Your task to perform on an android device: turn notification dots on Image 0: 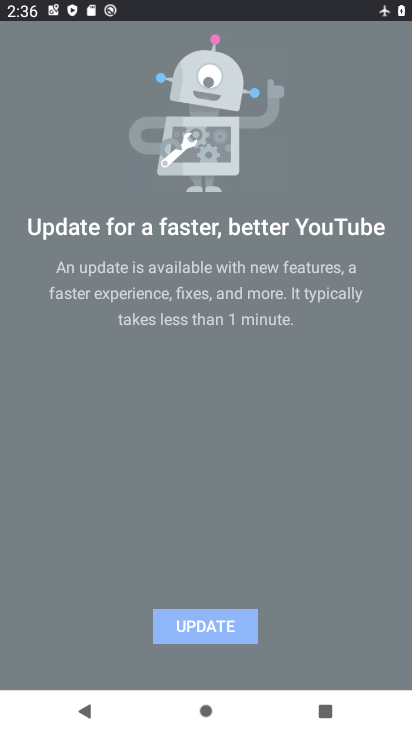
Step 0: drag from (215, 600) to (235, 175)
Your task to perform on an android device: turn notification dots on Image 1: 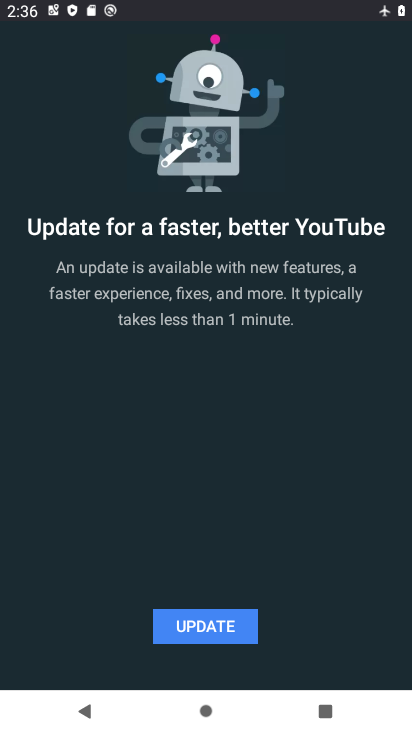
Step 1: press home button
Your task to perform on an android device: turn notification dots on Image 2: 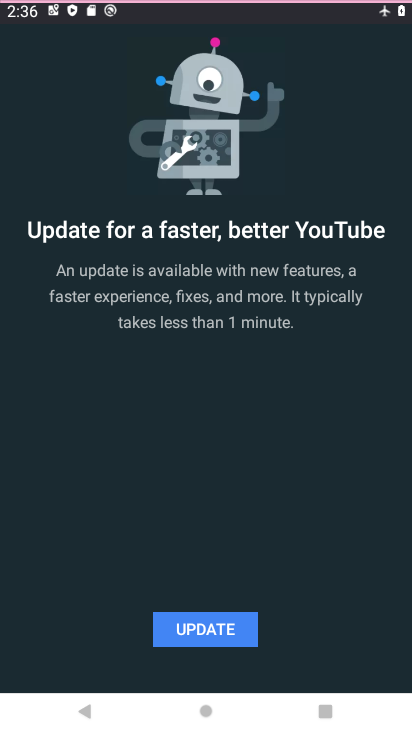
Step 2: press home button
Your task to perform on an android device: turn notification dots on Image 3: 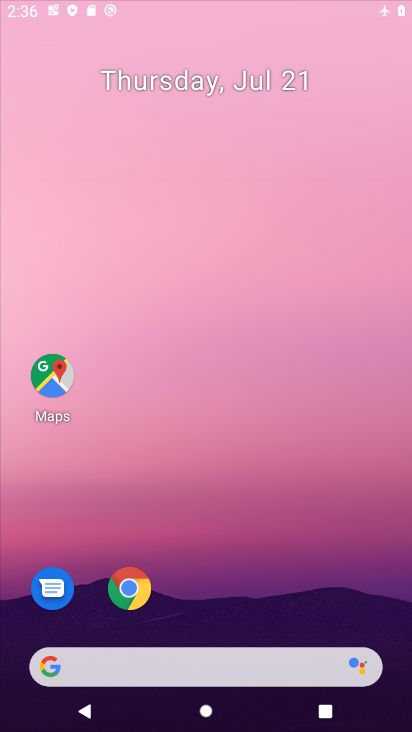
Step 3: drag from (197, 638) to (244, 17)
Your task to perform on an android device: turn notification dots on Image 4: 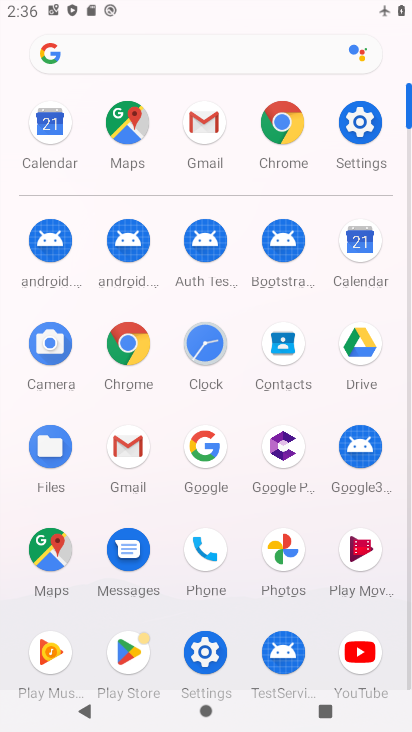
Step 4: drag from (201, 472) to (216, 217)
Your task to perform on an android device: turn notification dots on Image 5: 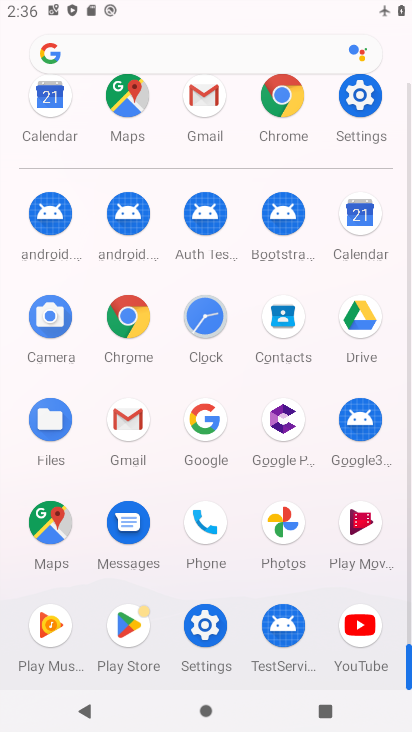
Step 5: click (203, 636)
Your task to perform on an android device: turn notification dots on Image 6: 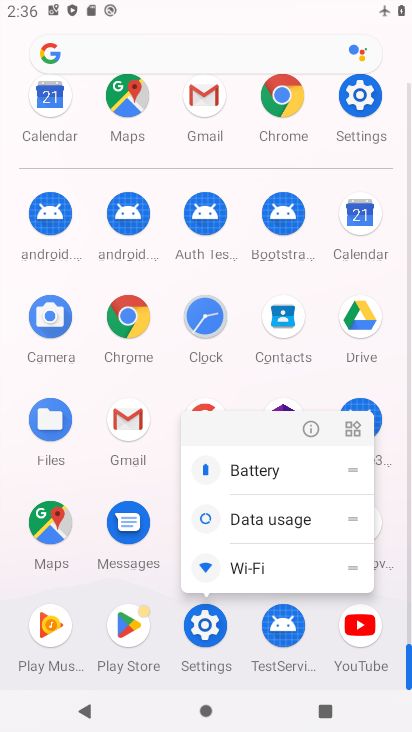
Step 6: click (313, 430)
Your task to perform on an android device: turn notification dots on Image 7: 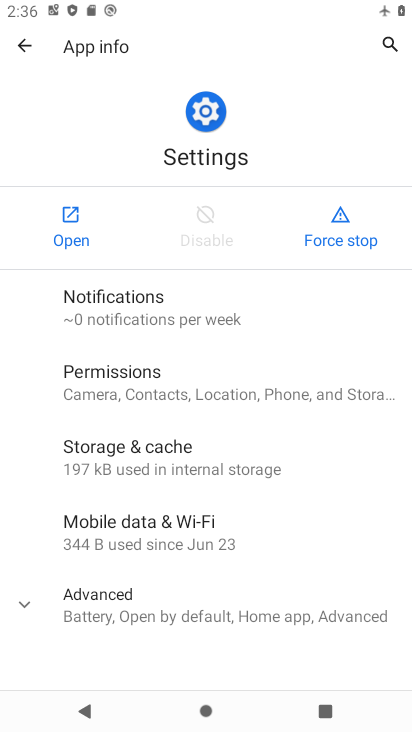
Step 7: click (63, 213)
Your task to perform on an android device: turn notification dots on Image 8: 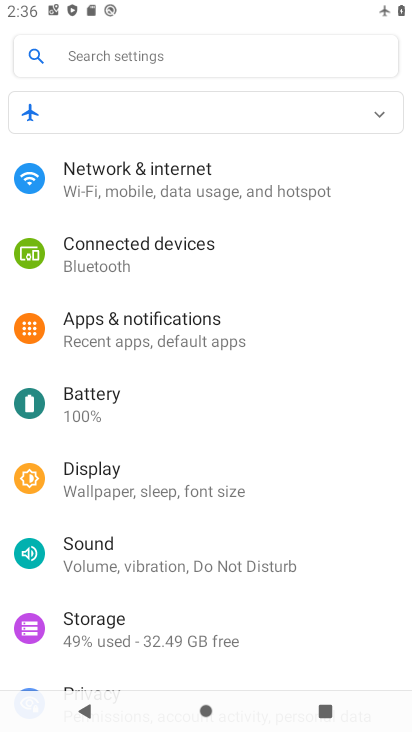
Step 8: click (235, 341)
Your task to perform on an android device: turn notification dots on Image 9: 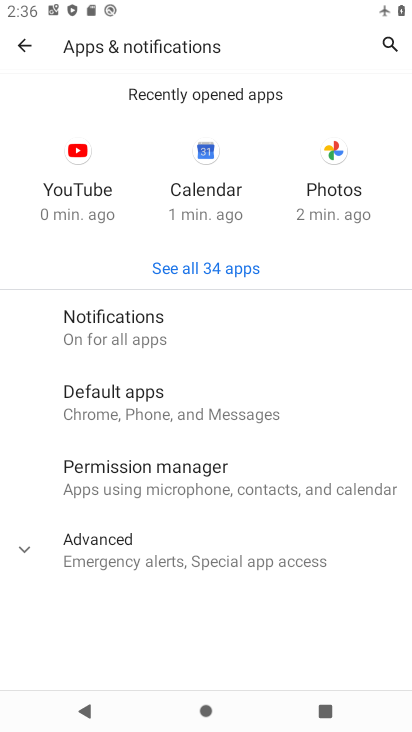
Step 9: drag from (172, 519) to (218, 297)
Your task to perform on an android device: turn notification dots on Image 10: 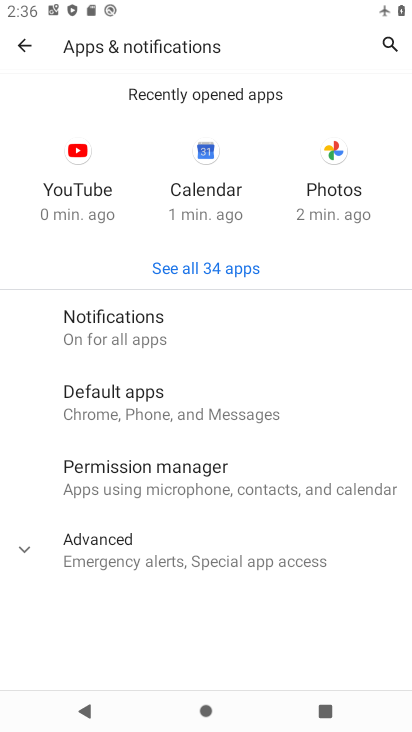
Step 10: click (205, 316)
Your task to perform on an android device: turn notification dots on Image 11: 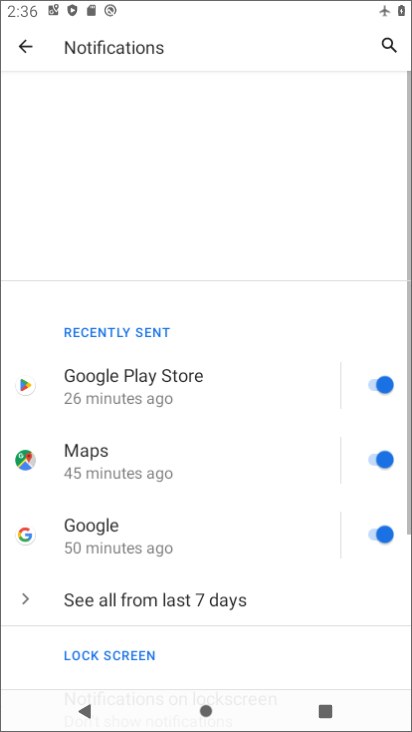
Step 11: drag from (260, 641) to (231, 168)
Your task to perform on an android device: turn notification dots on Image 12: 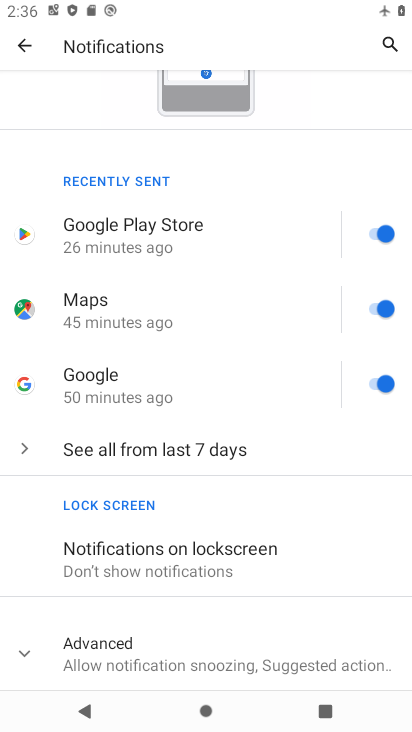
Step 12: click (153, 651)
Your task to perform on an android device: turn notification dots on Image 13: 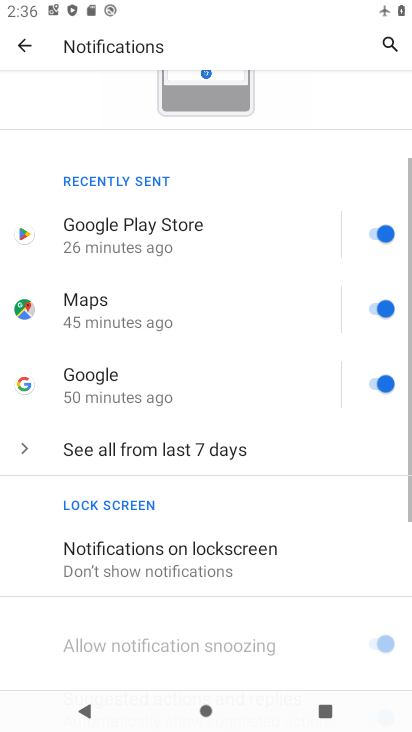
Step 13: task complete